Your task to perform on an android device: toggle notification dots Image 0: 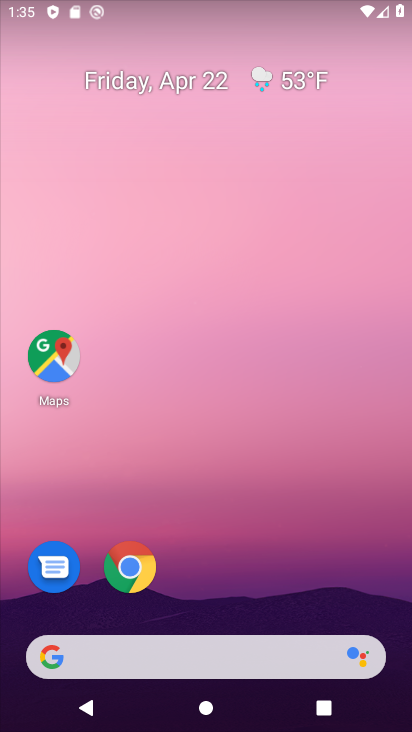
Step 0: drag from (292, 579) to (303, 106)
Your task to perform on an android device: toggle notification dots Image 1: 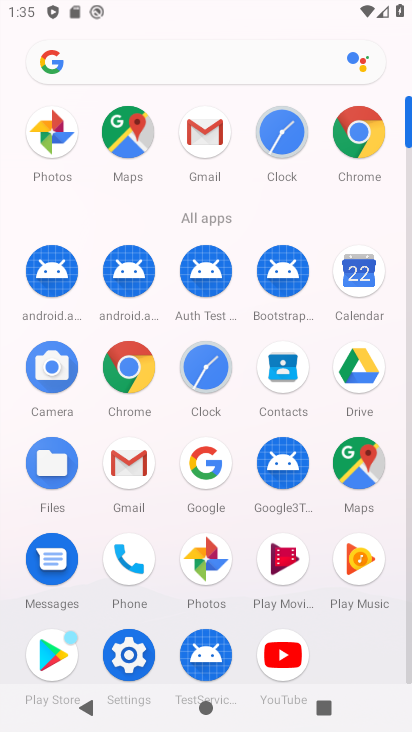
Step 1: click (134, 651)
Your task to perform on an android device: toggle notification dots Image 2: 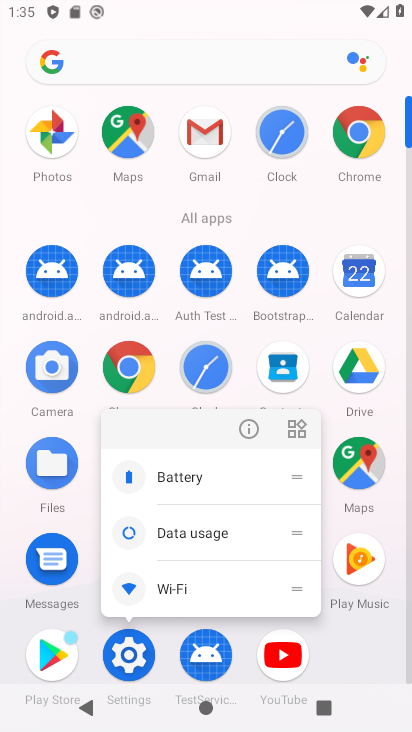
Step 2: click (134, 651)
Your task to perform on an android device: toggle notification dots Image 3: 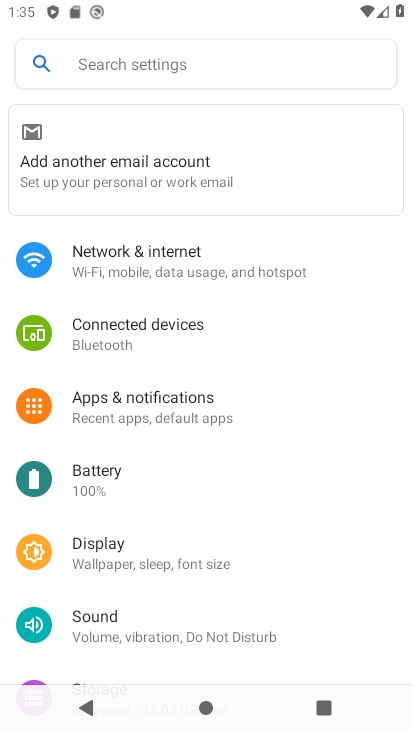
Step 3: click (205, 406)
Your task to perform on an android device: toggle notification dots Image 4: 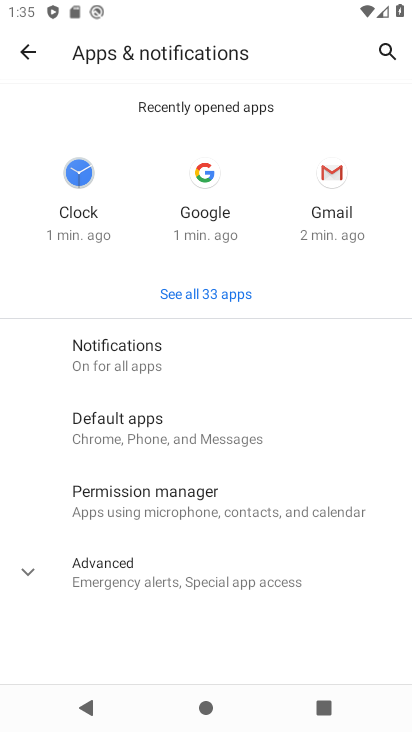
Step 4: click (25, 572)
Your task to perform on an android device: toggle notification dots Image 5: 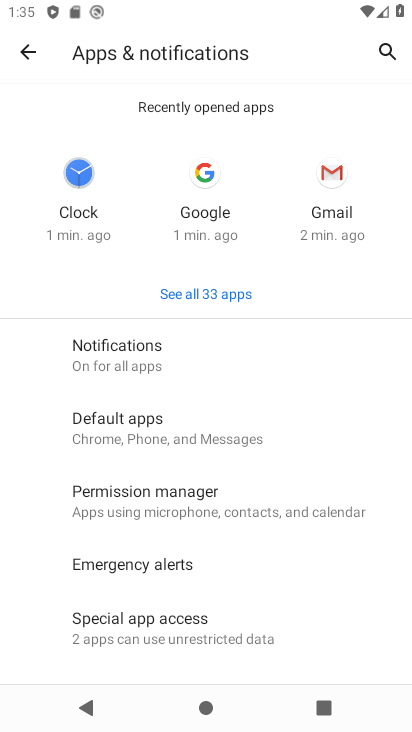
Step 5: drag from (272, 570) to (243, 230)
Your task to perform on an android device: toggle notification dots Image 6: 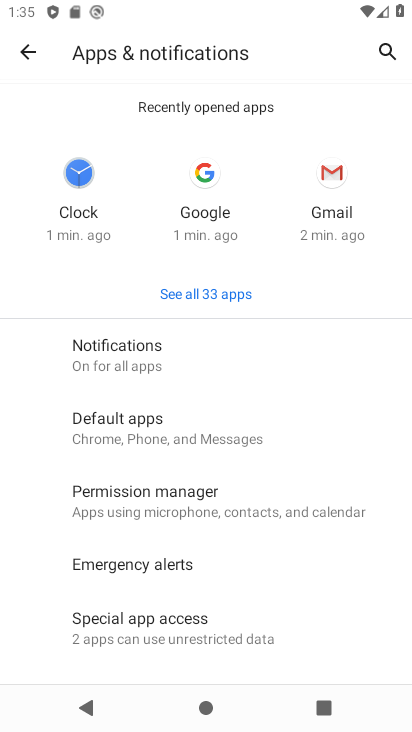
Step 6: click (183, 353)
Your task to perform on an android device: toggle notification dots Image 7: 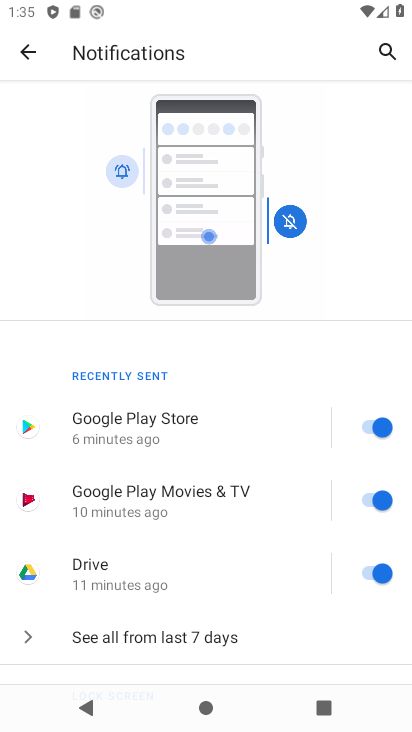
Step 7: drag from (288, 612) to (267, 169)
Your task to perform on an android device: toggle notification dots Image 8: 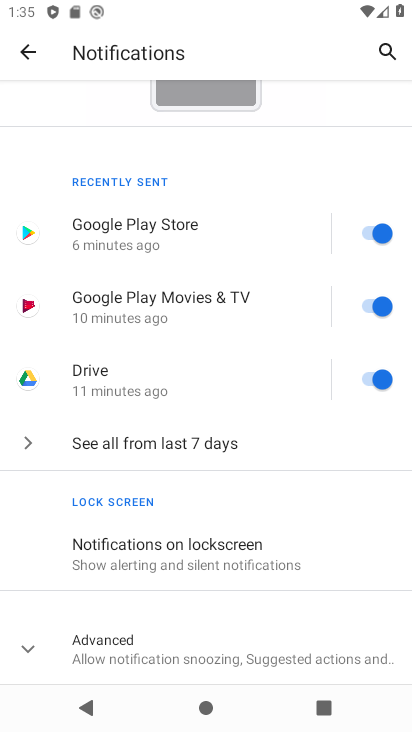
Step 8: click (27, 639)
Your task to perform on an android device: toggle notification dots Image 9: 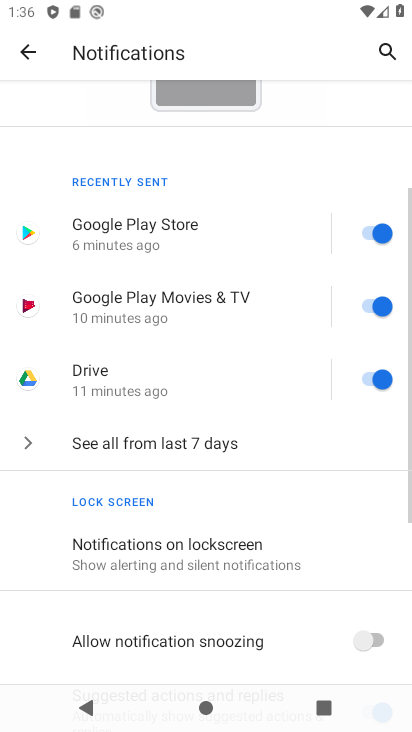
Step 9: drag from (273, 541) to (240, 181)
Your task to perform on an android device: toggle notification dots Image 10: 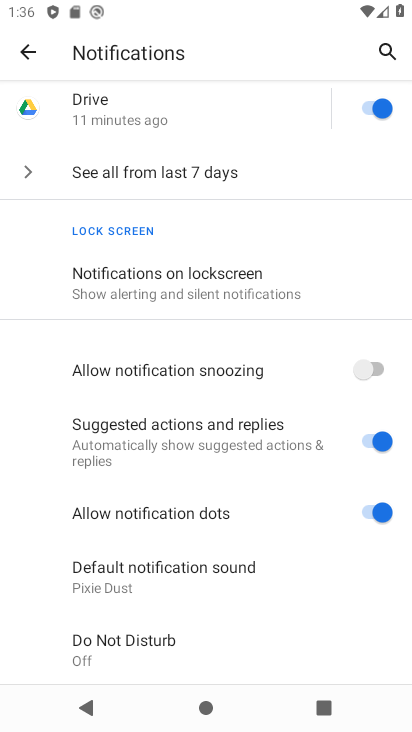
Step 10: click (364, 509)
Your task to perform on an android device: toggle notification dots Image 11: 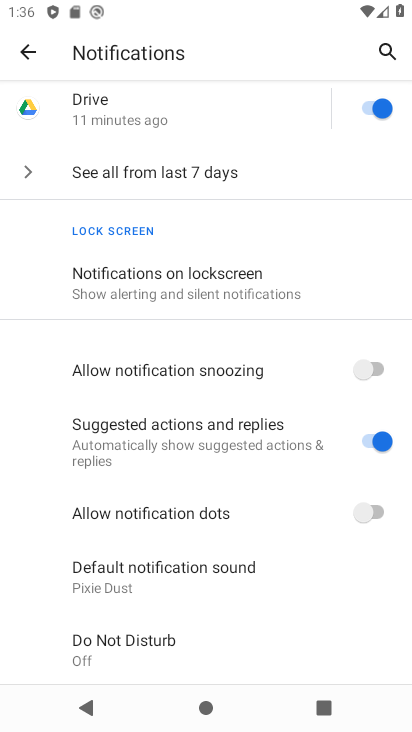
Step 11: task complete